Your task to perform on an android device: Is it going to rain this weekend? Image 0: 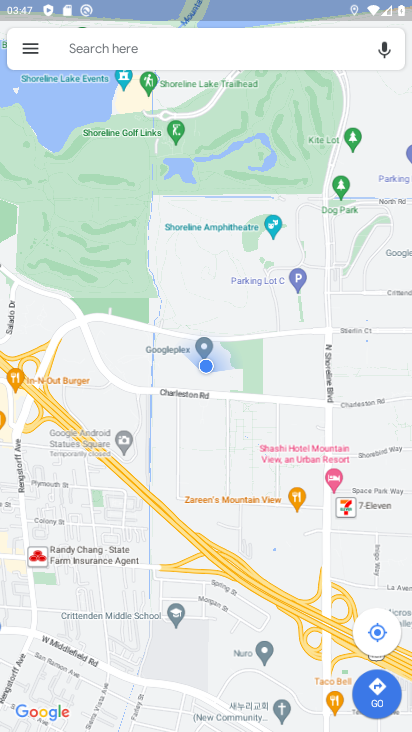
Step 0: press home button
Your task to perform on an android device: Is it going to rain this weekend? Image 1: 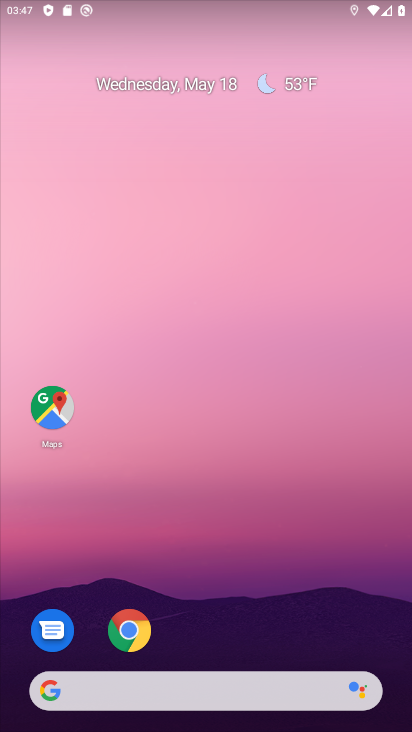
Step 1: click (266, 81)
Your task to perform on an android device: Is it going to rain this weekend? Image 2: 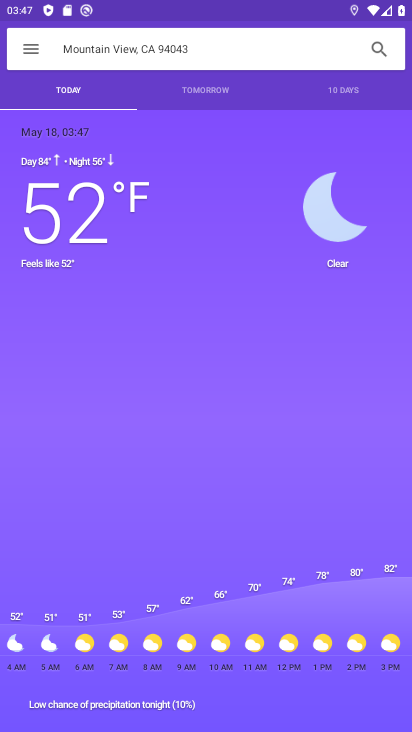
Step 2: click (331, 91)
Your task to perform on an android device: Is it going to rain this weekend? Image 3: 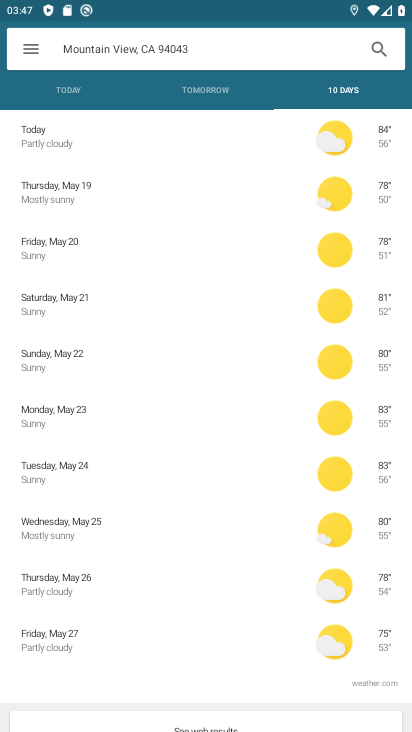
Step 3: click (50, 299)
Your task to perform on an android device: Is it going to rain this weekend? Image 4: 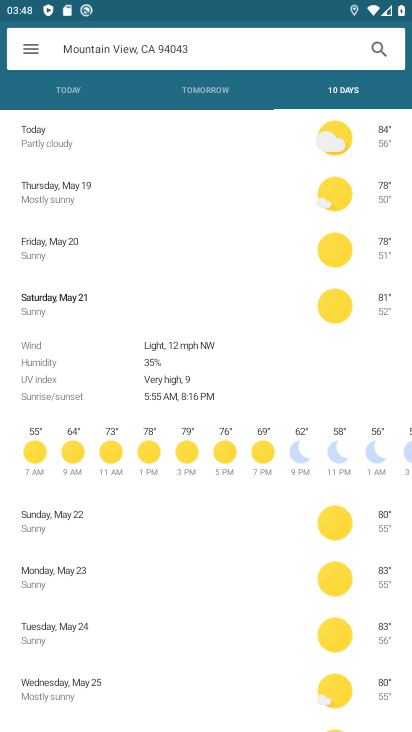
Step 4: task complete